Your task to perform on an android device: Do I have any events today? Image 0: 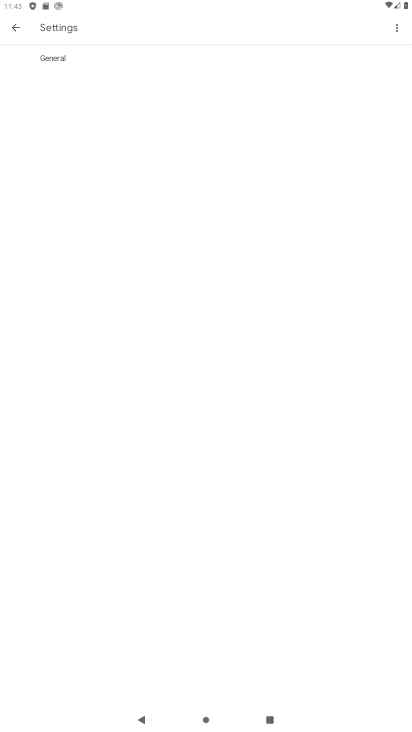
Step 0: click (15, 32)
Your task to perform on an android device: Do I have any events today? Image 1: 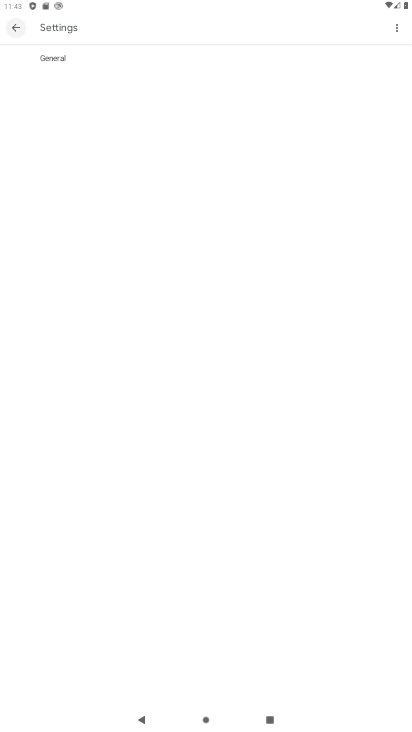
Step 1: click (13, 32)
Your task to perform on an android device: Do I have any events today? Image 2: 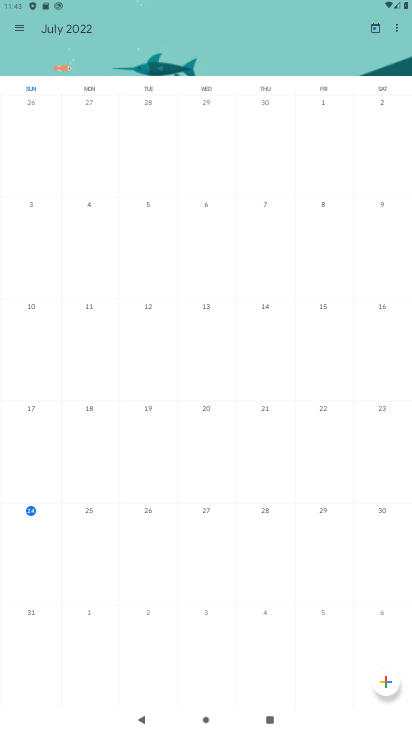
Step 2: click (80, 513)
Your task to perform on an android device: Do I have any events today? Image 3: 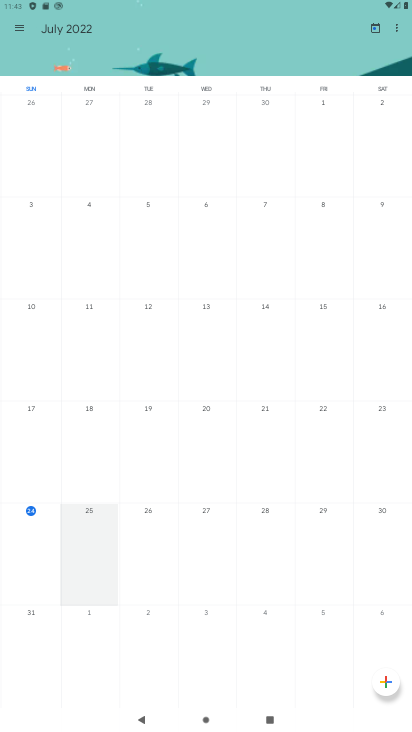
Step 3: click (83, 513)
Your task to perform on an android device: Do I have any events today? Image 4: 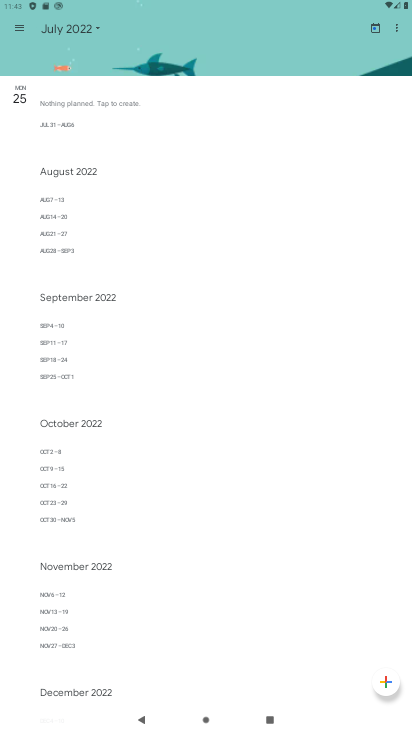
Step 4: click (86, 509)
Your task to perform on an android device: Do I have any events today? Image 5: 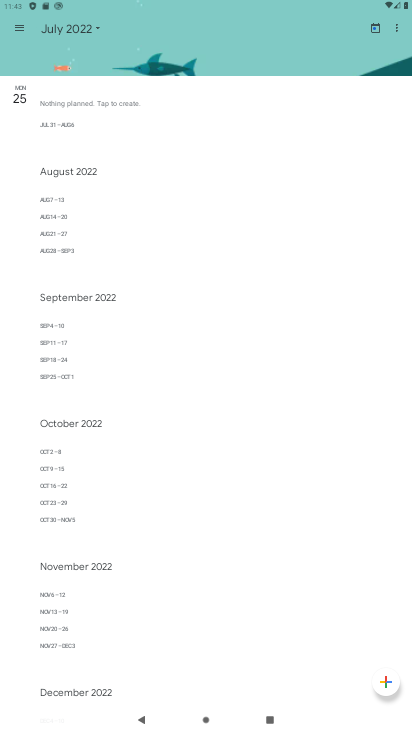
Step 5: task complete